Your task to perform on an android device: Search for Mexican restaurants on Maps Image 0: 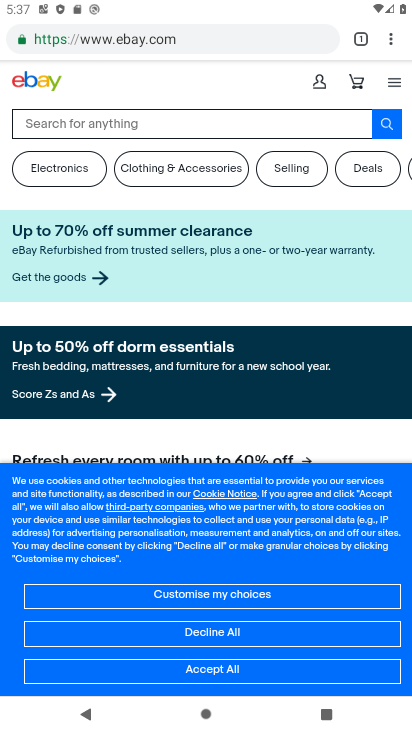
Step 0: click (254, 31)
Your task to perform on an android device: Search for Mexican restaurants on Maps Image 1: 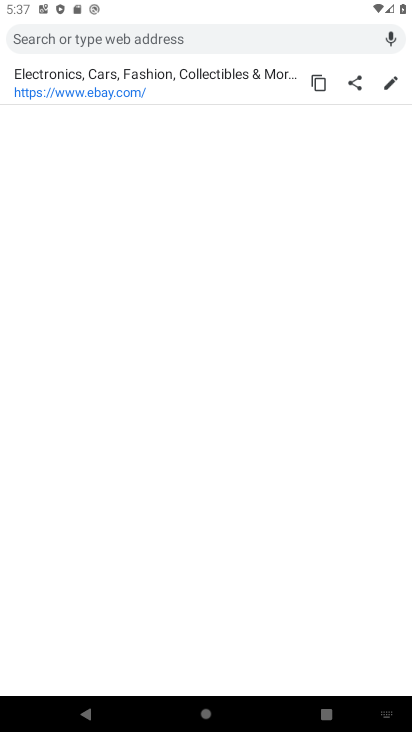
Step 1: type "mexican restaurant"
Your task to perform on an android device: Search for Mexican restaurants on Maps Image 2: 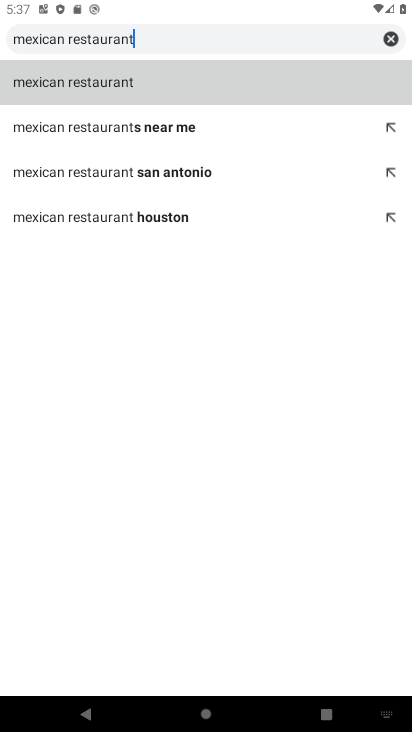
Step 2: click (166, 83)
Your task to perform on an android device: Search for Mexican restaurants on Maps Image 3: 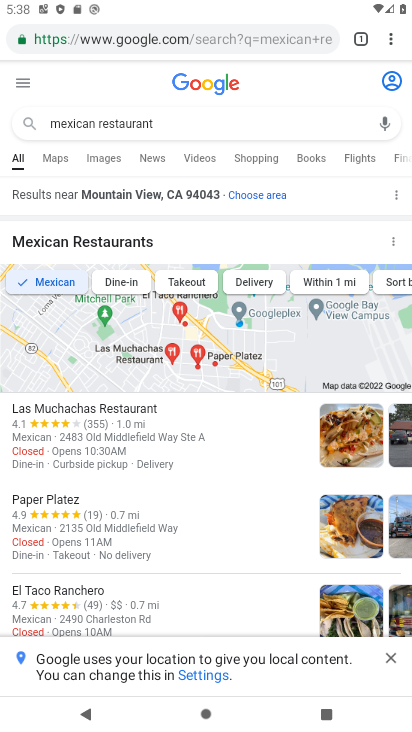
Step 3: press home button
Your task to perform on an android device: Search for Mexican restaurants on Maps Image 4: 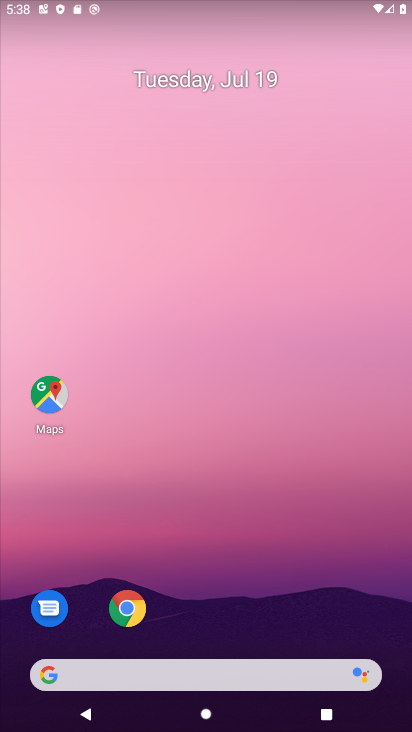
Step 4: drag from (297, 674) to (314, 8)
Your task to perform on an android device: Search for Mexican restaurants on Maps Image 5: 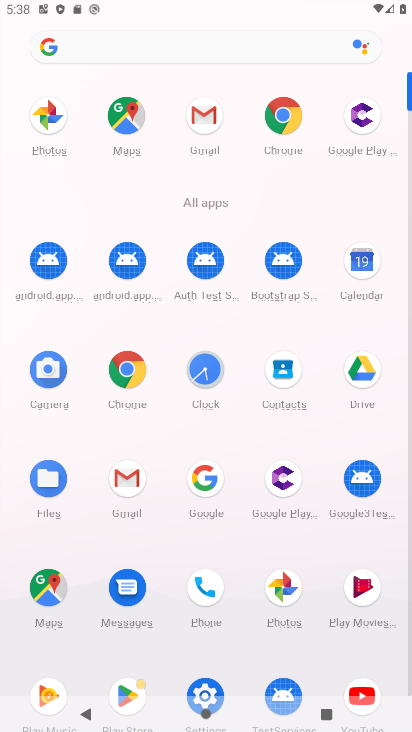
Step 5: click (51, 598)
Your task to perform on an android device: Search for Mexican restaurants on Maps Image 6: 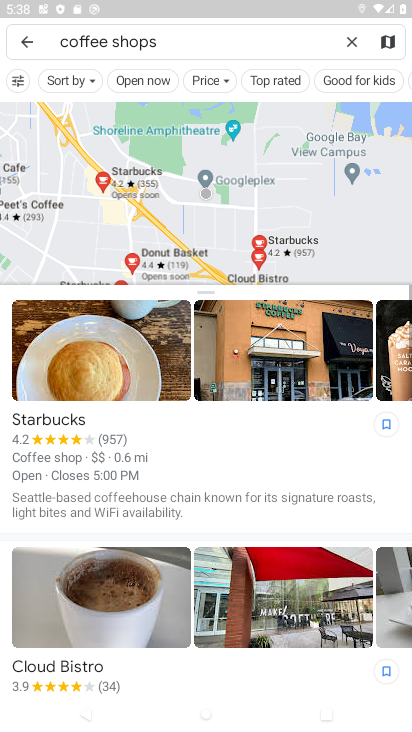
Step 6: click (354, 45)
Your task to perform on an android device: Search for Mexican restaurants on Maps Image 7: 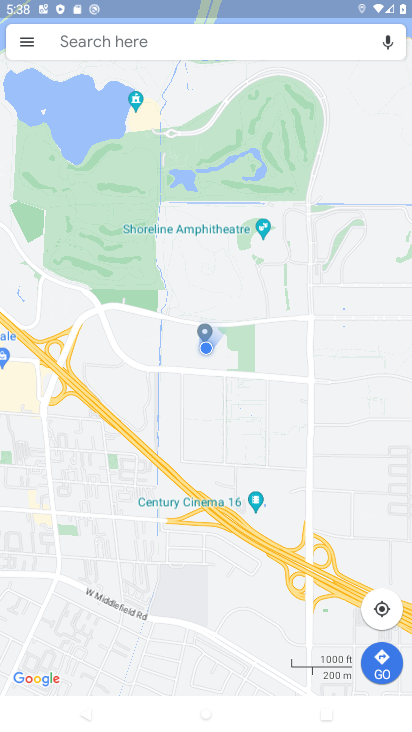
Step 7: click (245, 48)
Your task to perform on an android device: Search for Mexican restaurants on Maps Image 8: 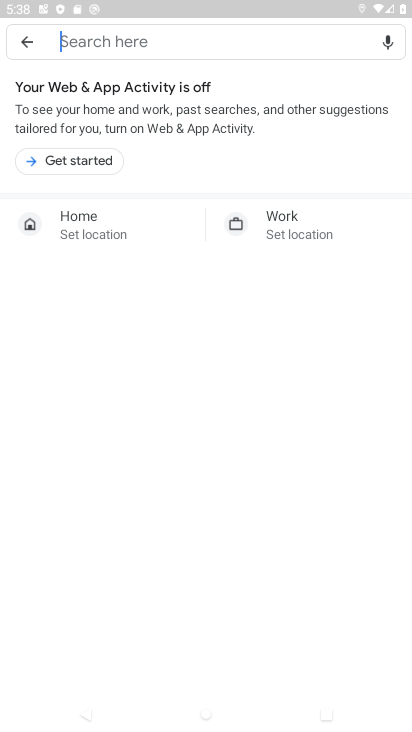
Step 8: click (245, 48)
Your task to perform on an android device: Search for Mexican restaurants on Maps Image 9: 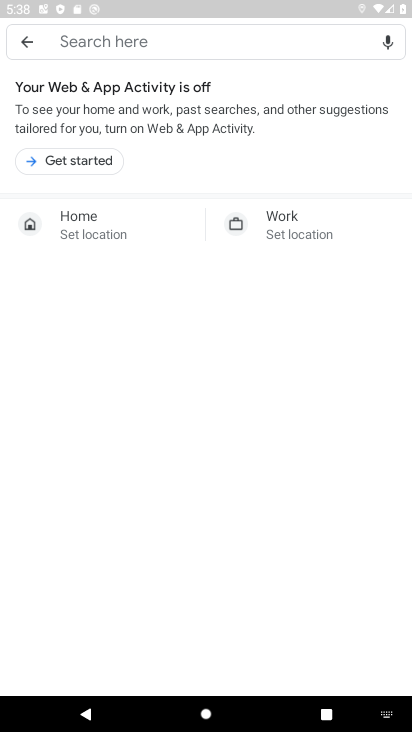
Step 9: type "mexican restaurant"
Your task to perform on an android device: Search for Mexican restaurants on Maps Image 10: 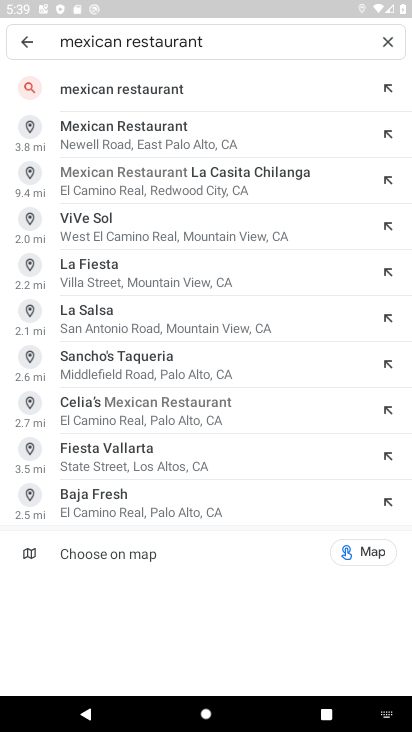
Step 10: click (170, 90)
Your task to perform on an android device: Search for Mexican restaurants on Maps Image 11: 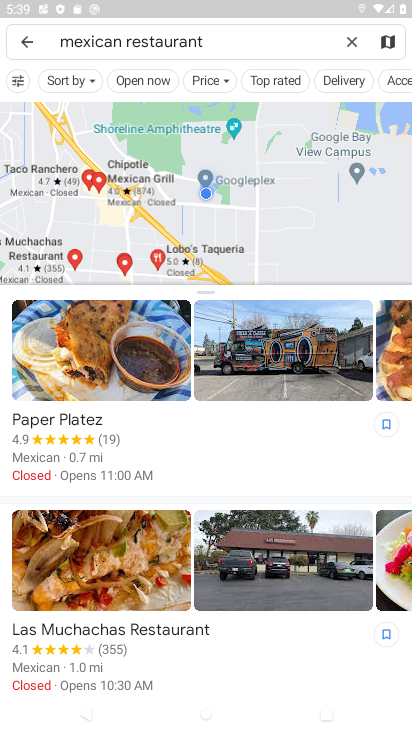
Step 11: task complete